Your task to perform on an android device: Search for the best rated Bluetooth earbuds on Ali express Image 0: 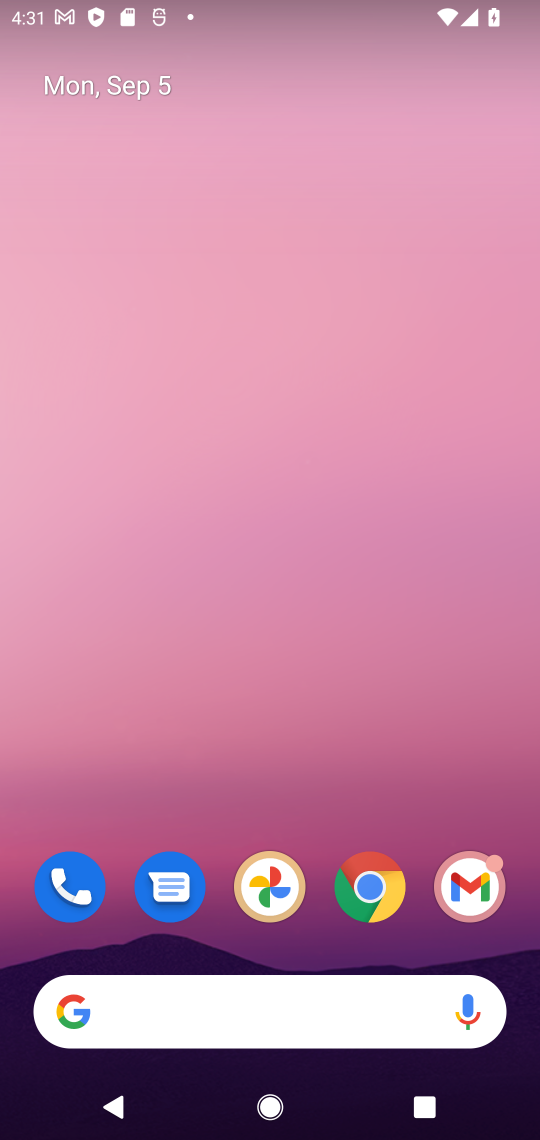
Step 0: drag from (343, 755) to (300, 9)
Your task to perform on an android device: Search for the best rated Bluetooth earbuds on Ali express Image 1: 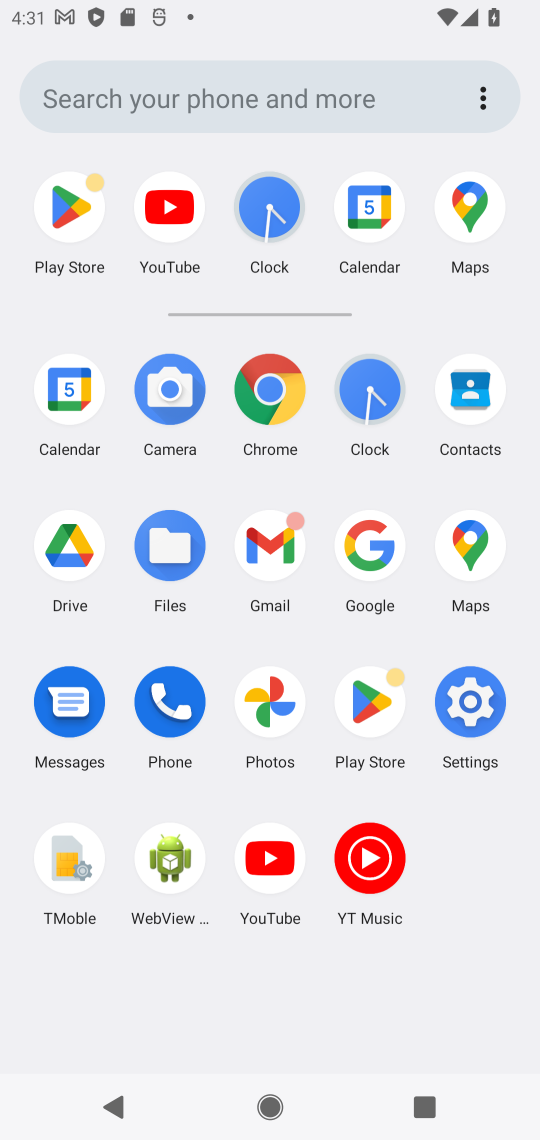
Step 1: click (253, 395)
Your task to perform on an android device: Search for the best rated Bluetooth earbuds on Ali express Image 2: 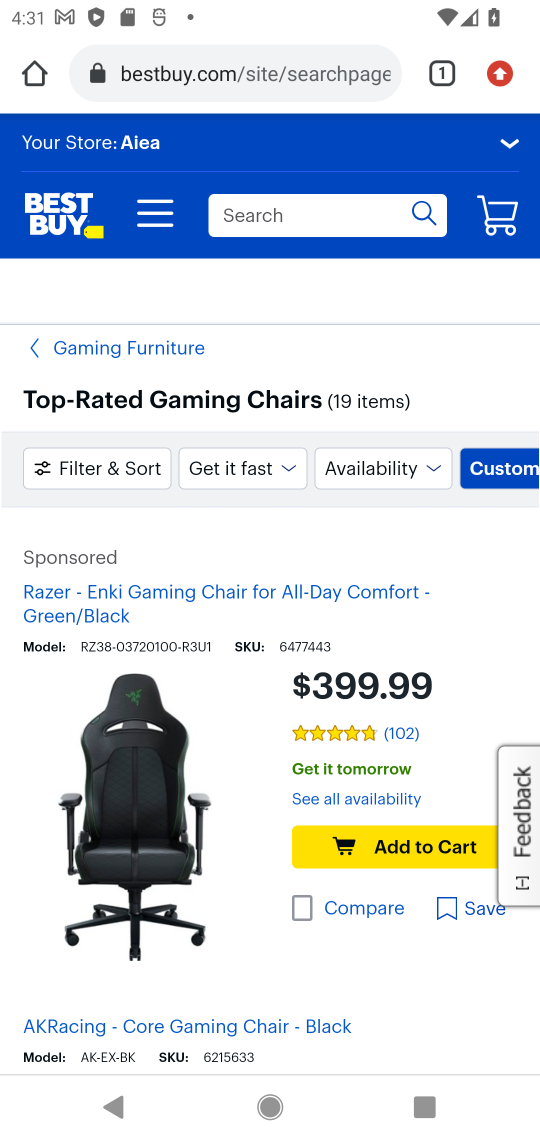
Step 2: click (271, 73)
Your task to perform on an android device: Search for the best rated Bluetooth earbuds on Ali express Image 3: 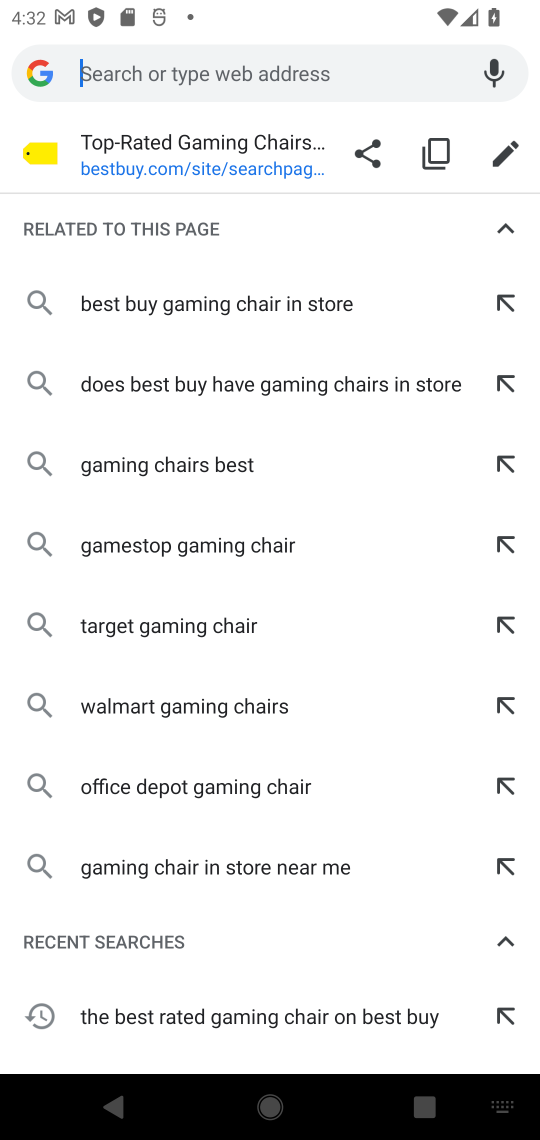
Step 3: type "best rated Bluetooth earbuds on Ali Express"
Your task to perform on an android device: Search for the best rated Bluetooth earbuds on Ali express Image 4: 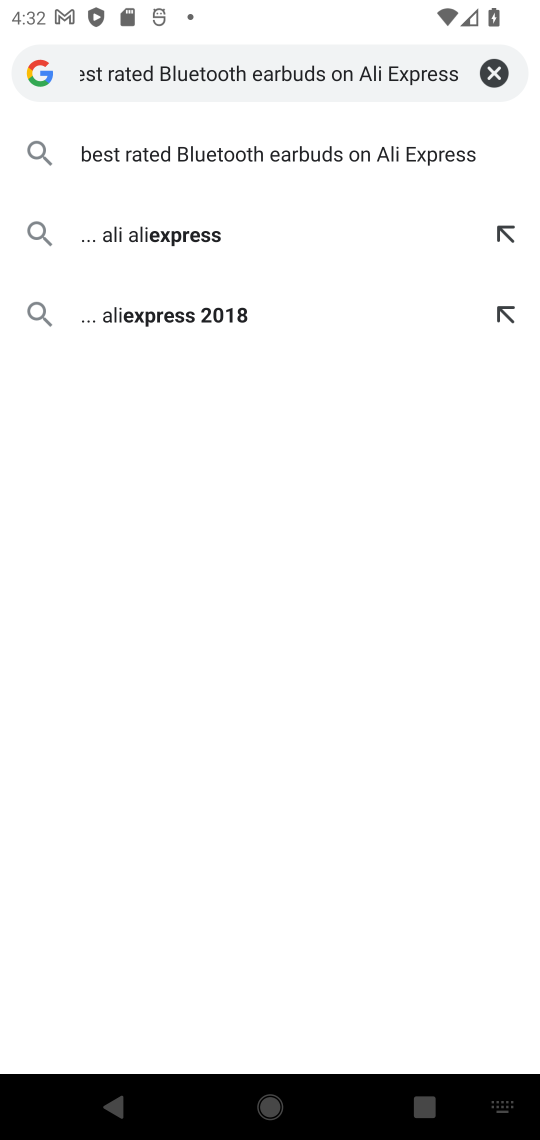
Step 4: press enter
Your task to perform on an android device: Search for the best rated Bluetooth earbuds on Ali express Image 5: 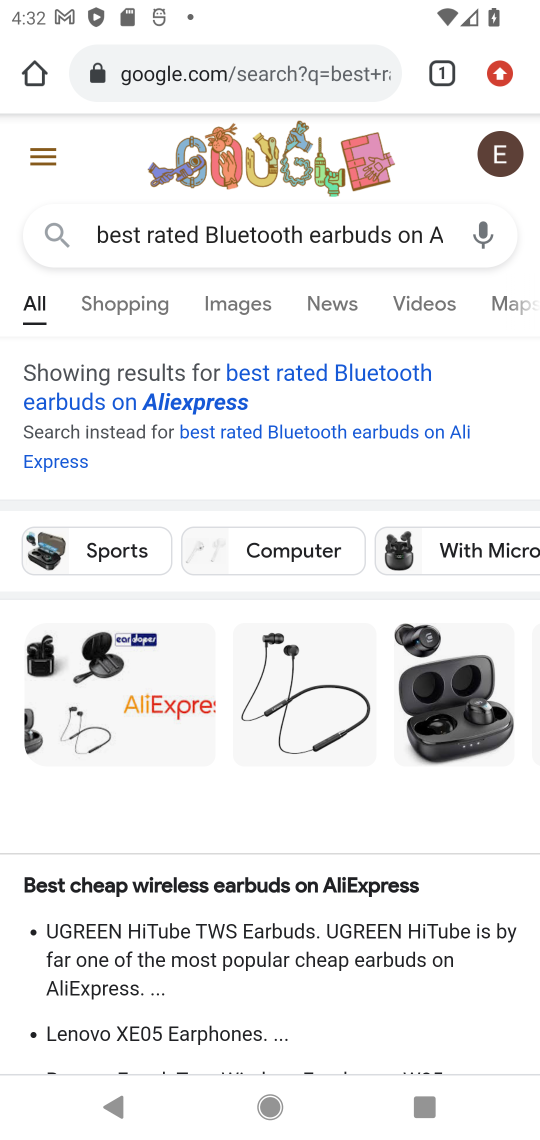
Step 5: drag from (268, 859) to (309, 31)
Your task to perform on an android device: Search for the best rated Bluetooth earbuds on Ali express Image 6: 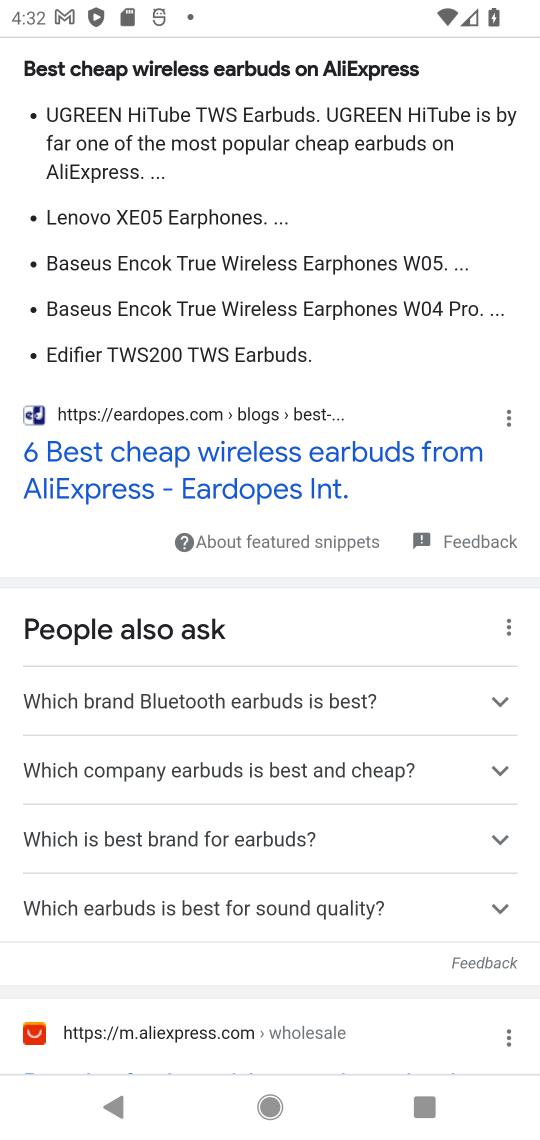
Step 6: click (188, 449)
Your task to perform on an android device: Search for the best rated Bluetooth earbuds on Ali express Image 7: 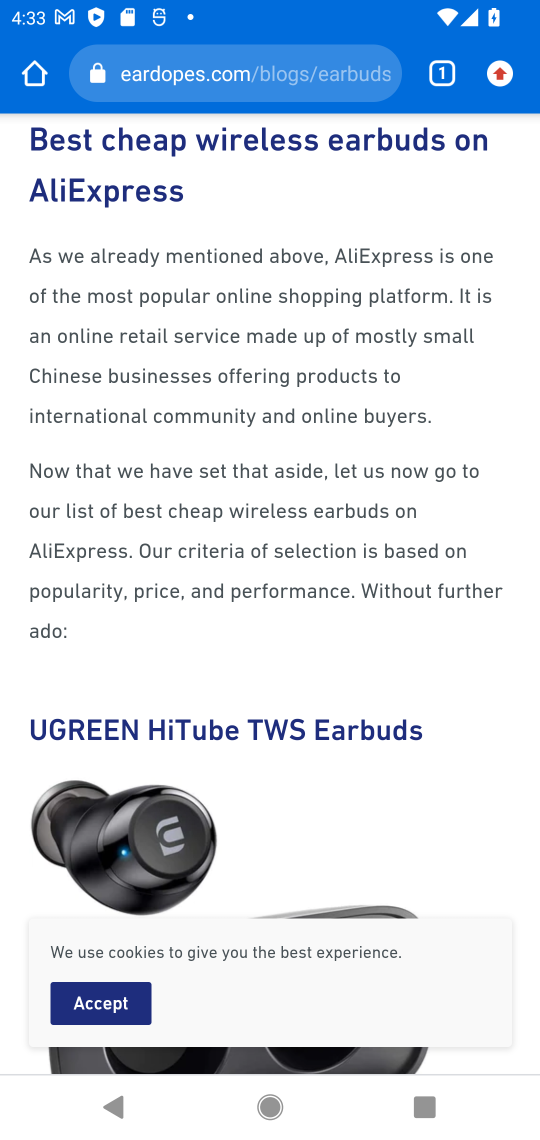
Step 7: task complete